Your task to perform on an android device: turn off javascript in the chrome app Image 0: 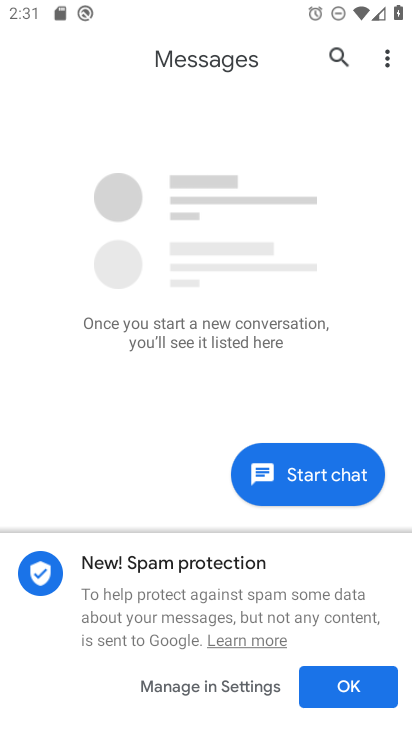
Step 0: press home button
Your task to perform on an android device: turn off javascript in the chrome app Image 1: 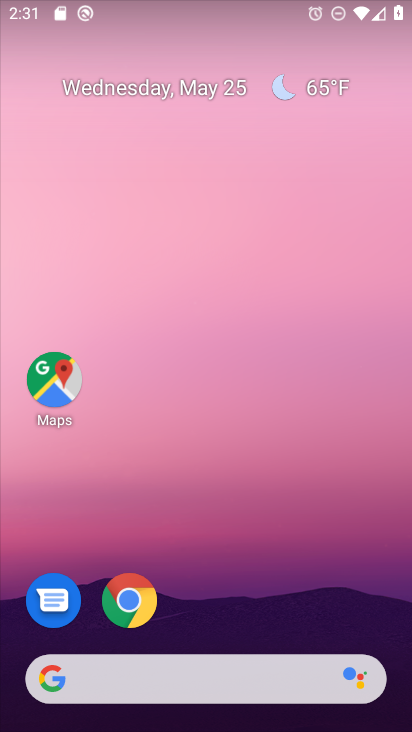
Step 1: click (128, 591)
Your task to perform on an android device: turn off javascript in the chrome app Image 2: 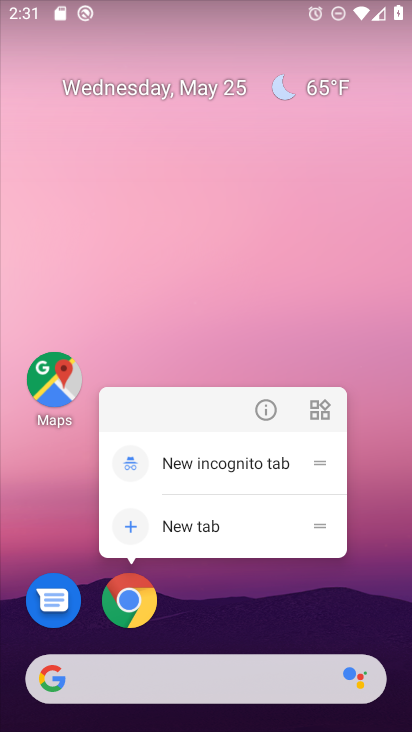
Step 2: click (123, 600)
Your task to perform on an android device: turn off javascript in the chrome app Image 3: 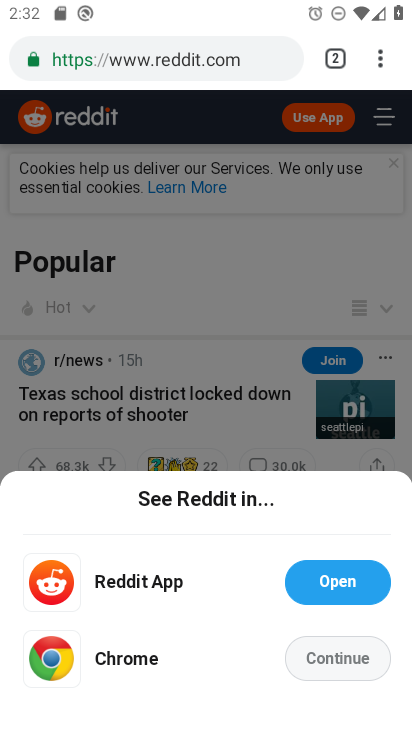
Step 3: click (376, 56)
Your task to perform on an android device: turn off javascript in the chrome app Image 4: 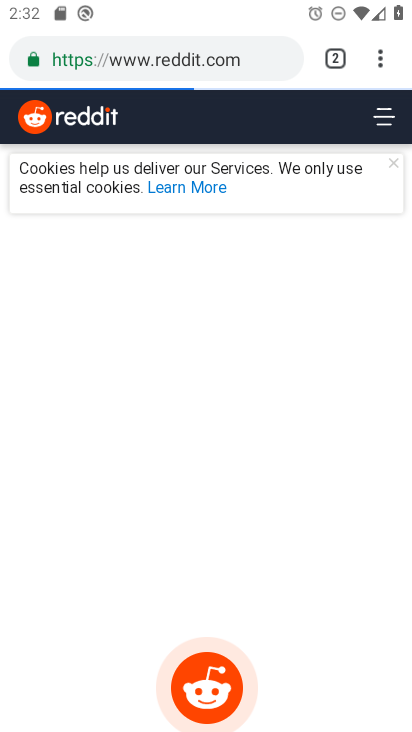
Step 4: drag from (389, 49) to (169, 612)
Your task to perform on an android device: turn off javascript in the chrome app Image 5: 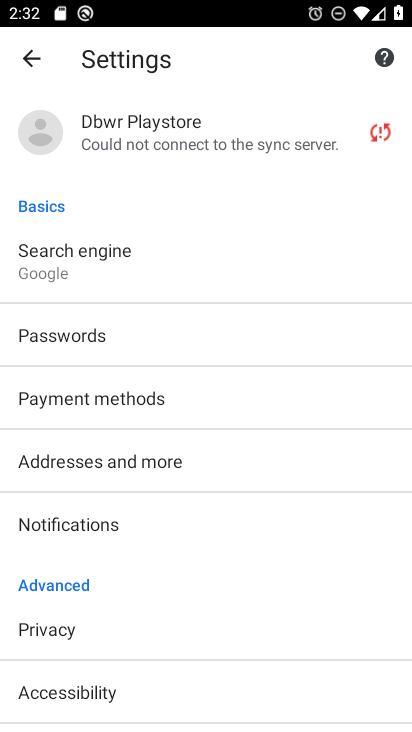
Step 5: drag from (241, 627) to (277, 112)
Your task to perform on an android device: turn off javascript in the chrome app Image 6: 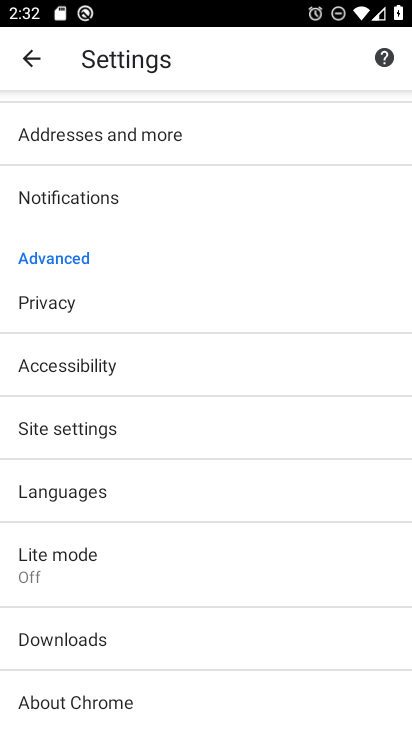
Step 6: click (50, 425)
Your task to perform on an android device: turn off javascript in the chrome app Image 7: 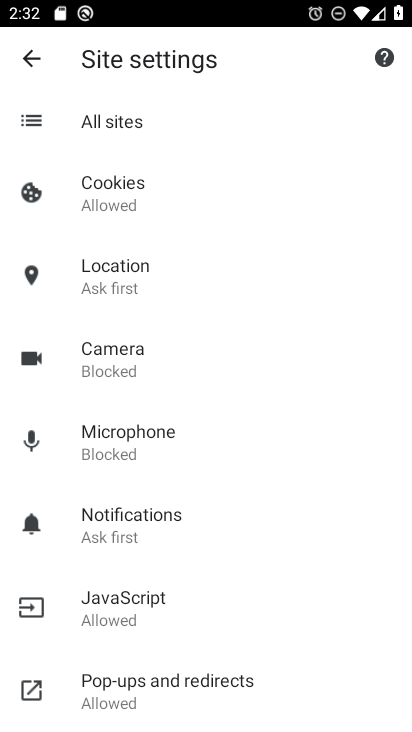
Step 7: click (160, 596)
Your task to perform on an android device: turn off javascript in the chrome app Image 8: 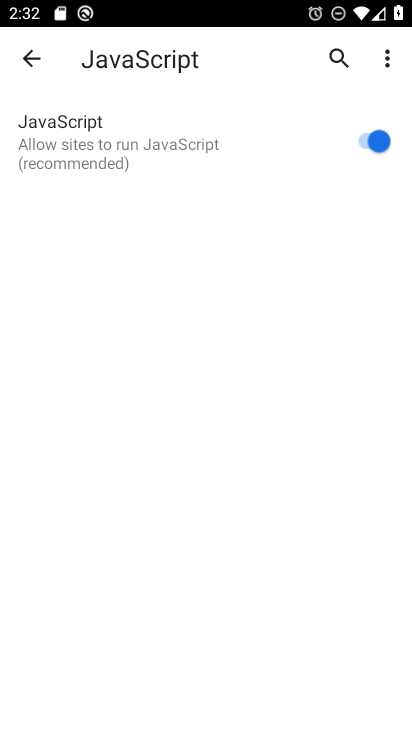
Step 8: click (385, 135)
Your task to perform on an android device: turn off javascript in the chrome app Image 9: 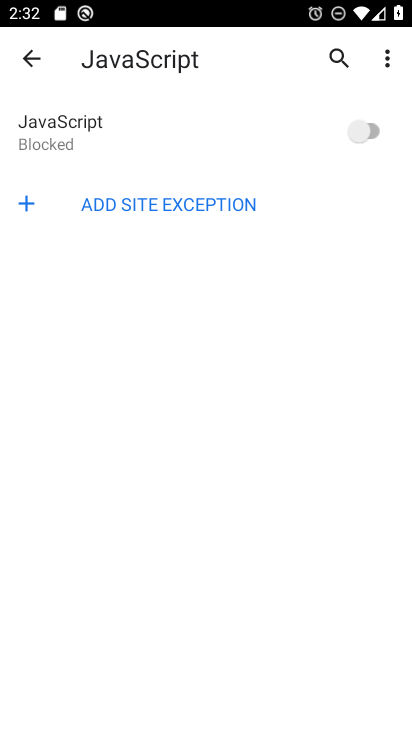
Step 9: task complete